Your task to perform on an android device: turn off smart reply in the gmail app Image 0: 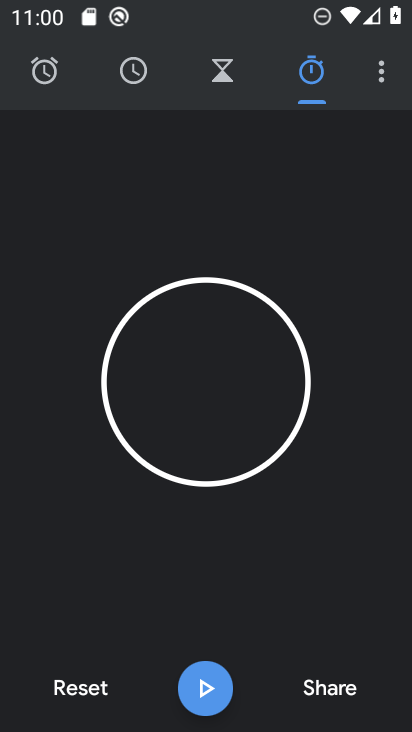
Step 0: press home button
Your task to perform on an android device: turn off smart reply in the gmail app Image 1: 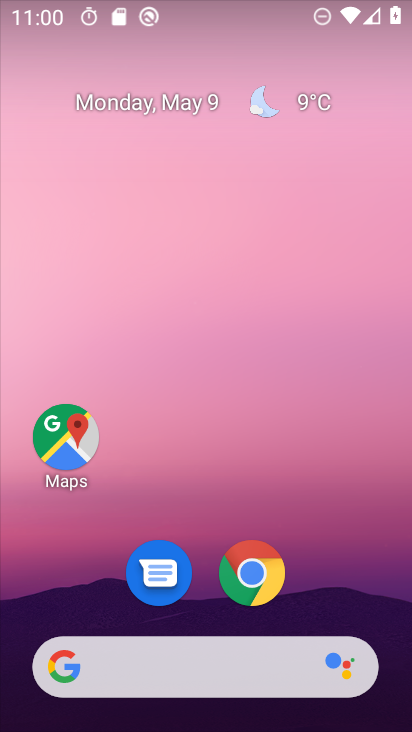
Step 1: drag from (353, 592) to (228, 212)
Your task to perform on an android device: turn off smart reply in the gmail app Image 2: 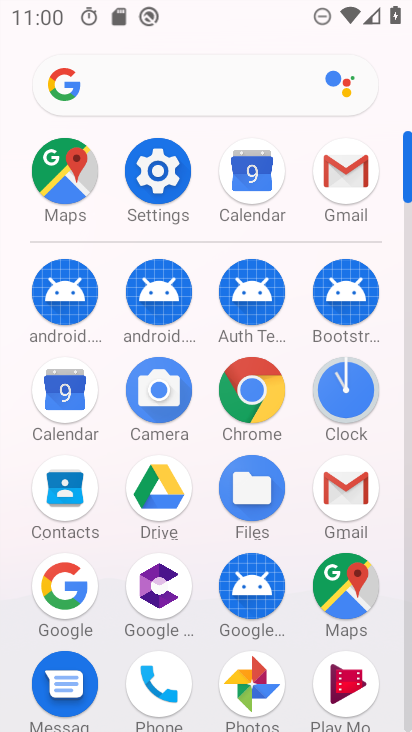
Step 2: click (348, 176)
Your task to perform on an android device: turn off smart reply in the gmail app Image 3: 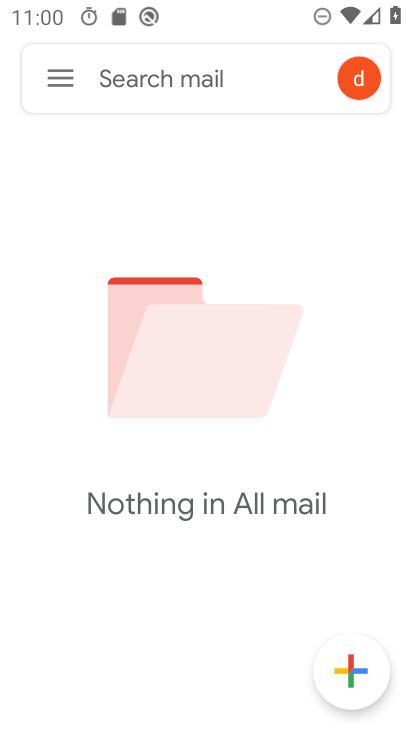
Step 3: click (68, 72)
Your task to perform on an android device: turn off smart reply in the gmail app Image 4: 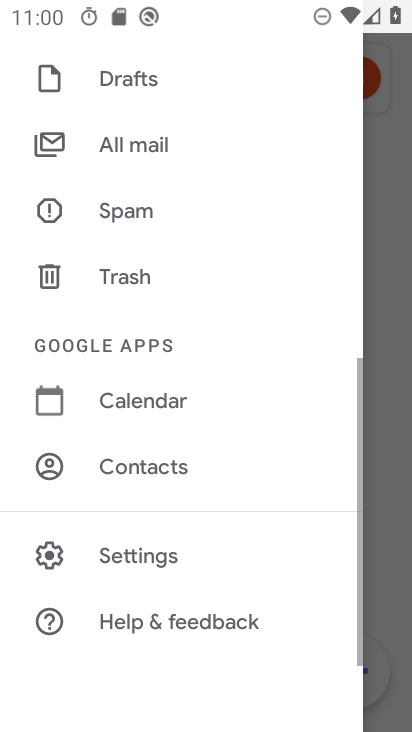
Step 4: drag from (162, 566) to (212, 153)
Your task to perform on an android device: turn off smart reply in the gmail app Image 5: 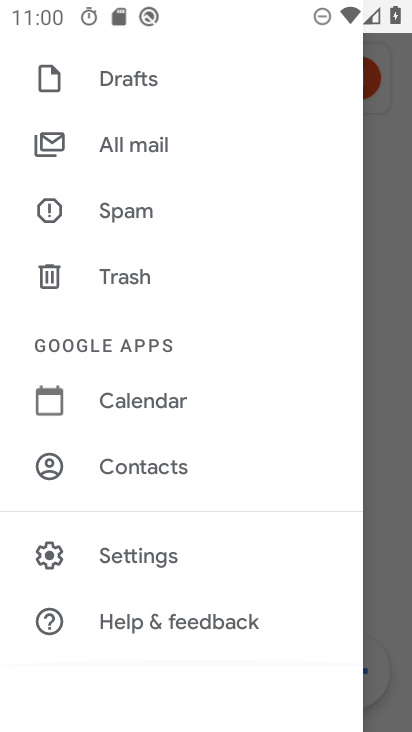
Step 5: click (152, 554)
Your task to perform on an android device: turn off smart reply in the gmail app Image 6: 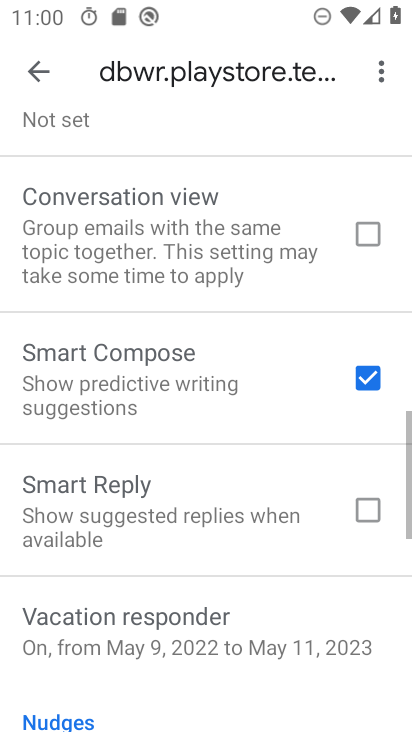
Step 6: task complete